Your task to perform on an android device: Search for sushi restaurants on Maps Image 0: 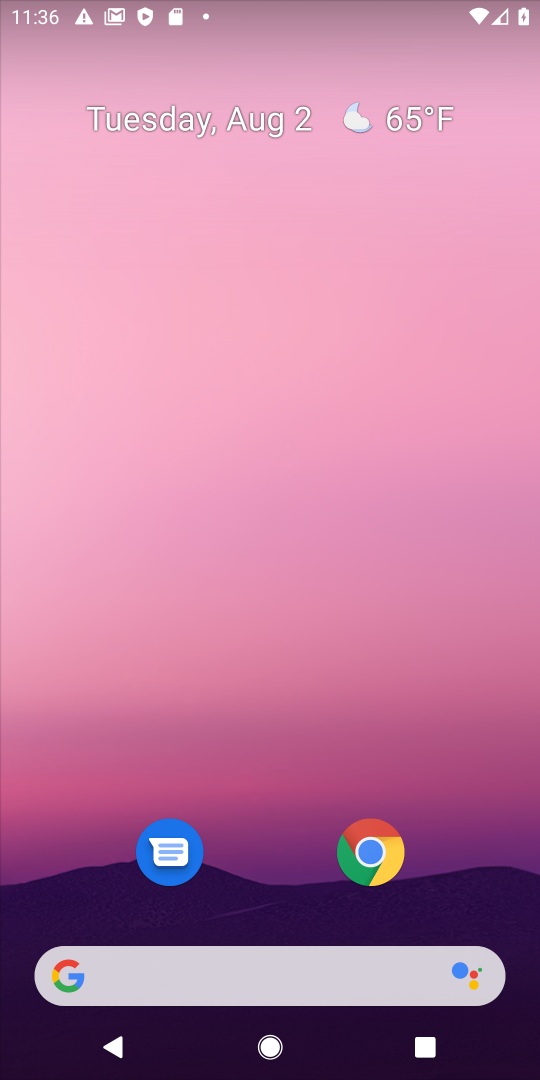
Step 0: drag from (455, 906) to (271, 120)
Your task to perform on an android device: Search for sushi restaurants on Maps Image 1: 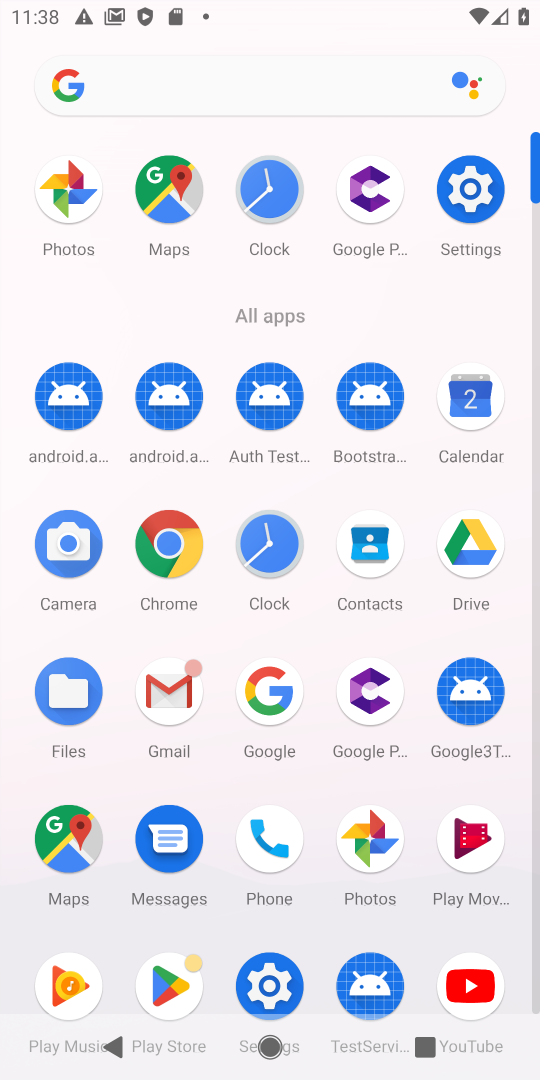
Step 1: click (89, 829)
Your task to perform on an android device: Search for sushi restaurants on Maps Image 2: 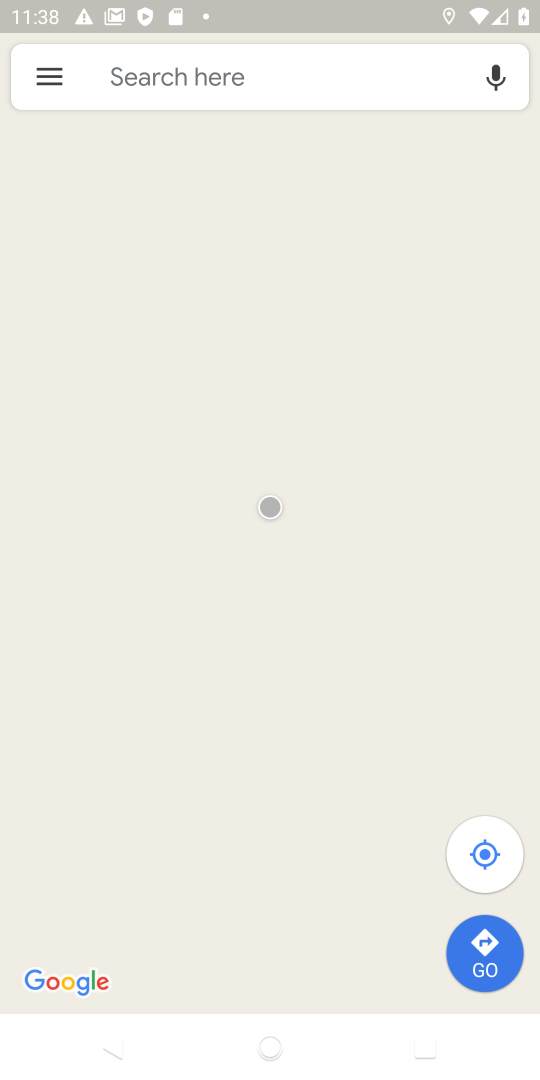
Step 2: click (192, 75)
Your task to perform on an android device: Search for sushi restaurants on Maps Image 3: 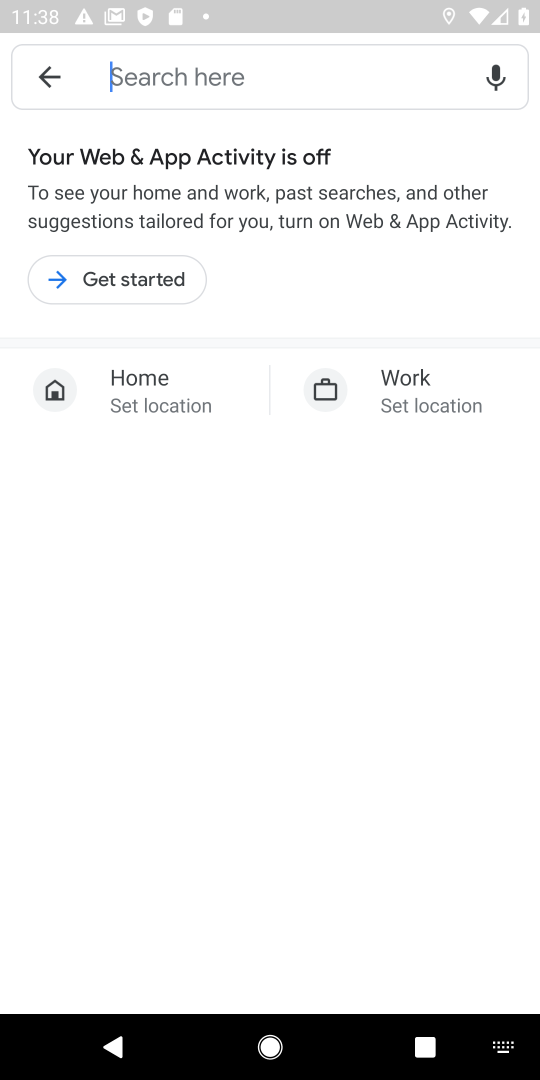
Step 3: click (145, 287)
Your task to perform on an android device: Search for sushi restaurants on Maps Image 4: 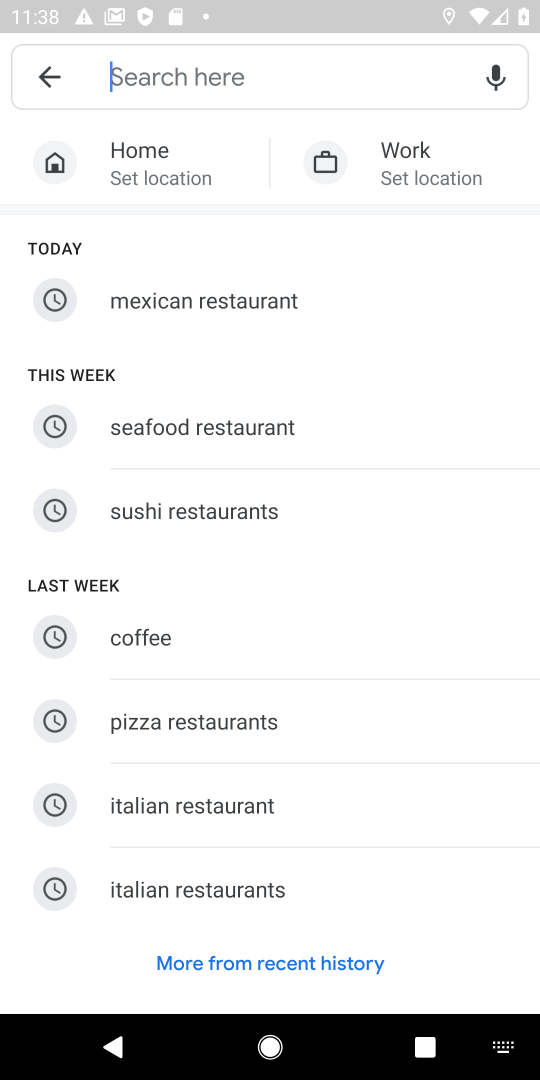
Step 4: click (200, 522)
Your task to perform on an android device: Search for sushi restaurants on Maps Image 5: 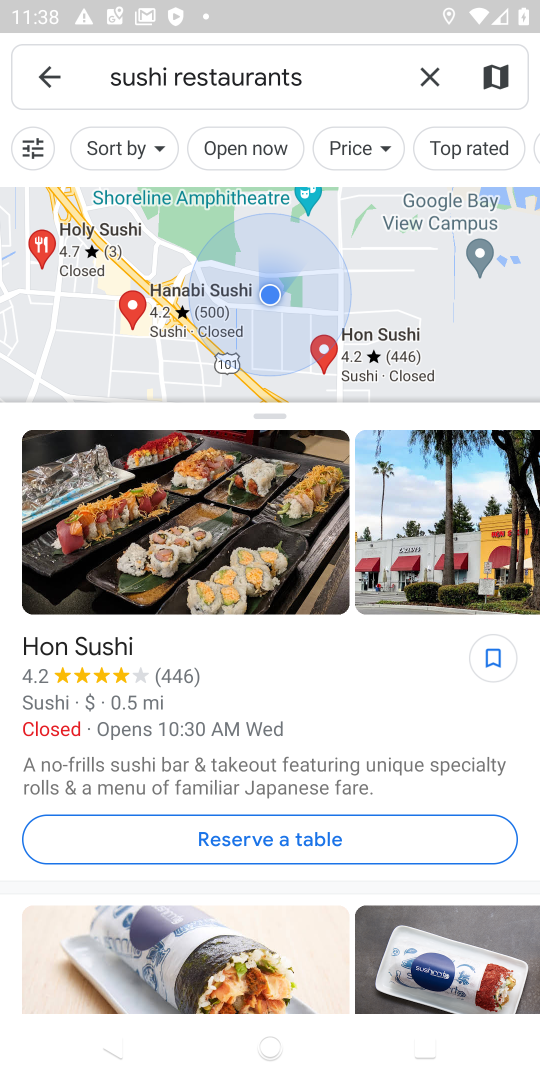
Step 5: task complete